Your task to perform on an android device: Open calendar and show me the third week of next month Image 0: 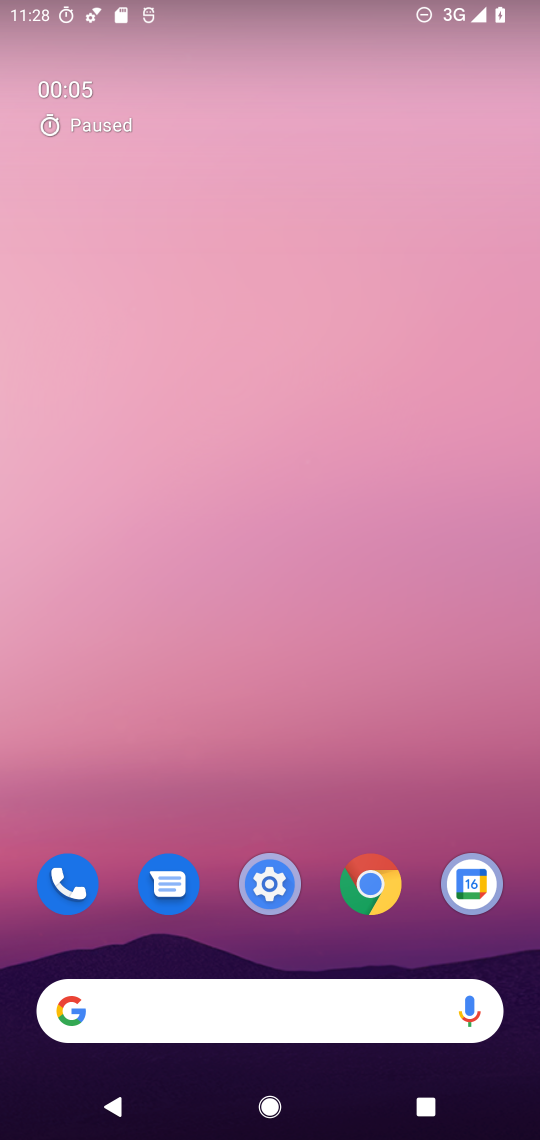
Step 0: drag from (322, 719) to (305, 252)
Your task to perform on an android device: Open calendar and show me the third week of next month Image 1: 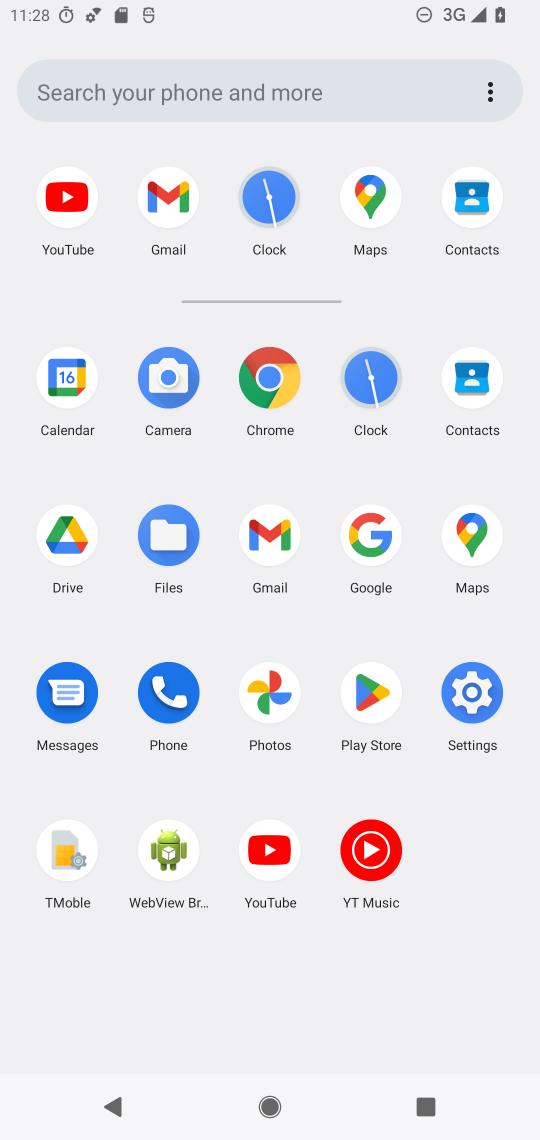
Step 1: click (58, 433)
Your task to perform on an android device: Open calendar and show me the third week of next month Image 2: 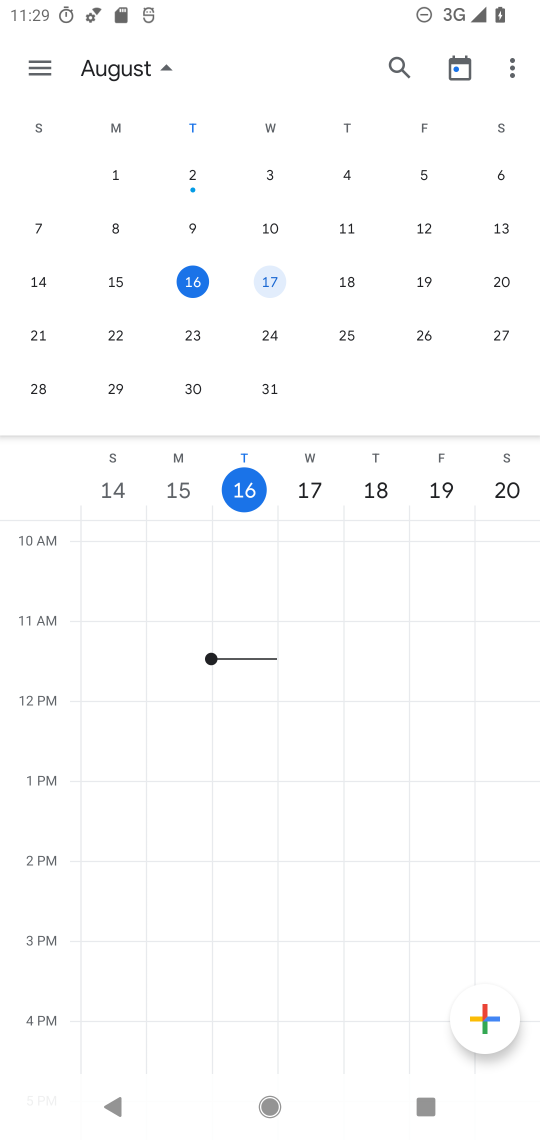
Step 2: click (107, 70)
Your task to perform on an android device: Open calendar and show me the third week of next month Image 3: 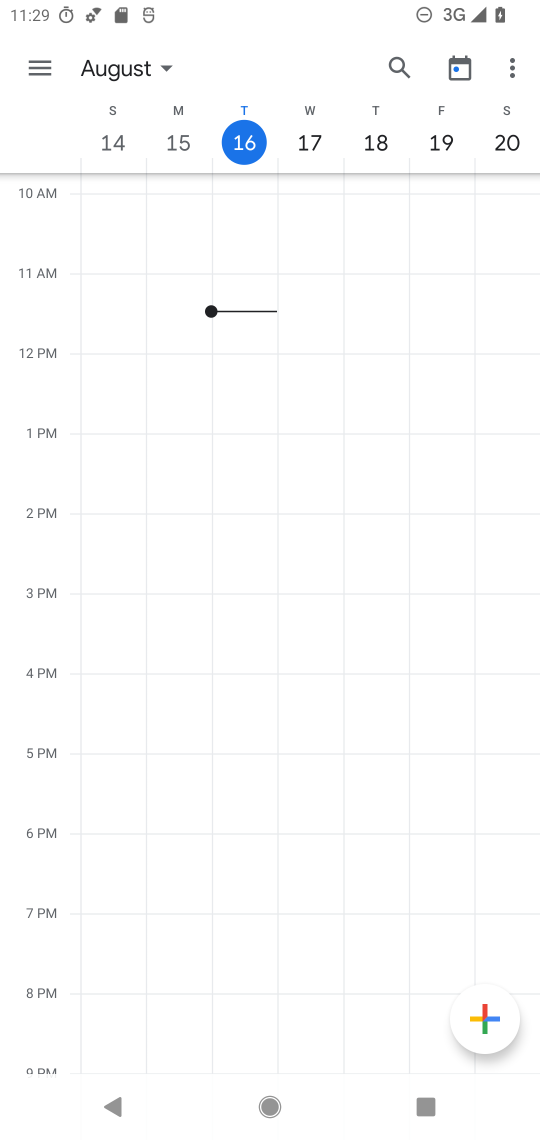
Step 3: click (107, 70)
Your task to perform on an android device: Open calendar and show me the third week of next month Image 4: 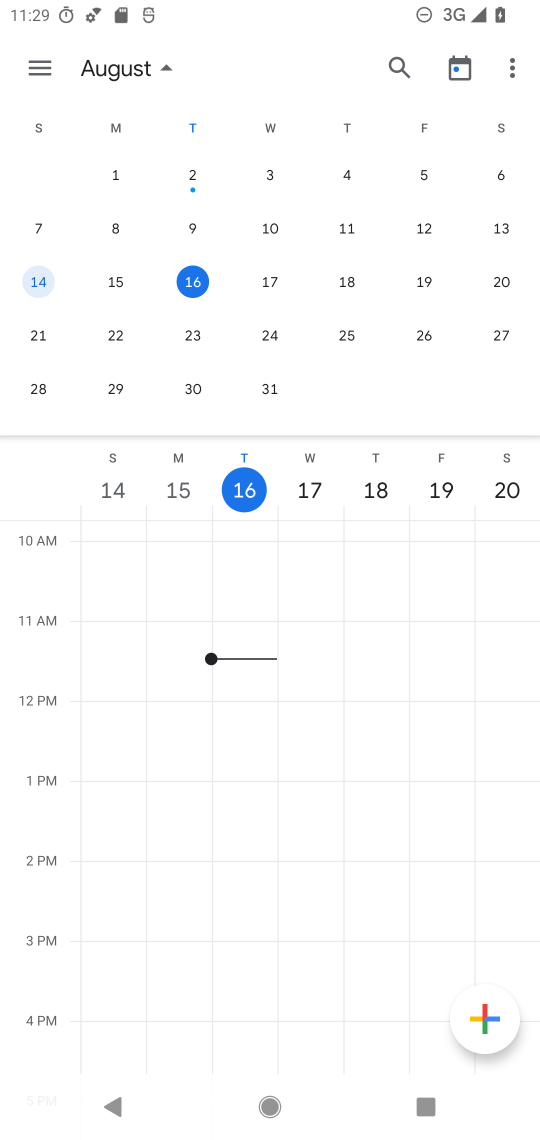
Step 4: drag from (488, 256) to (27, 293)
Your task to perform on an android device: Open calendar and show me the third week of next month Image 5: 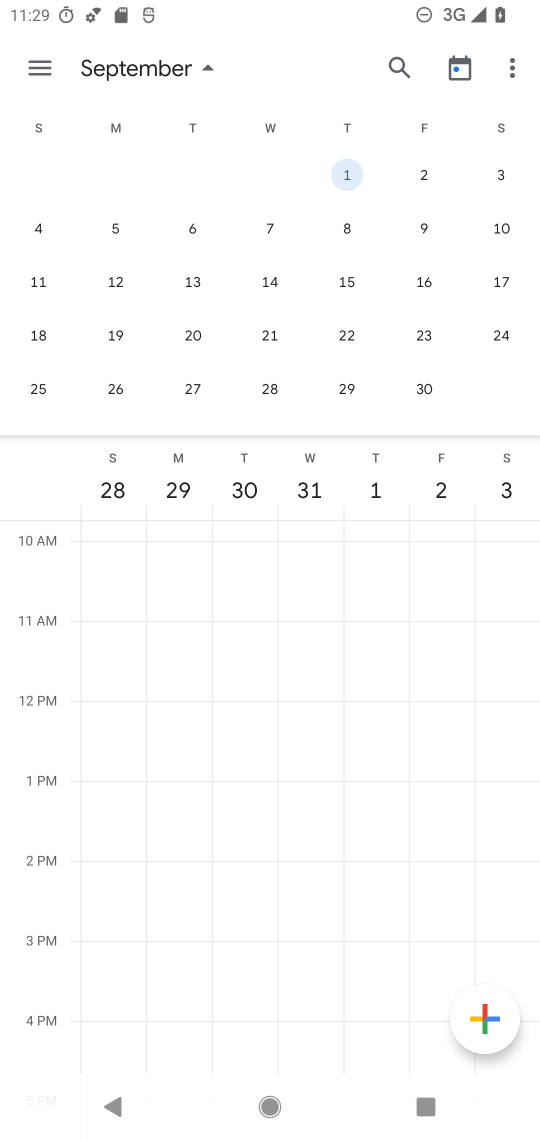
Step 5: click (38, 278)
Your task to perform on an android device: Open calendar and show me the third week of next month Image 6: 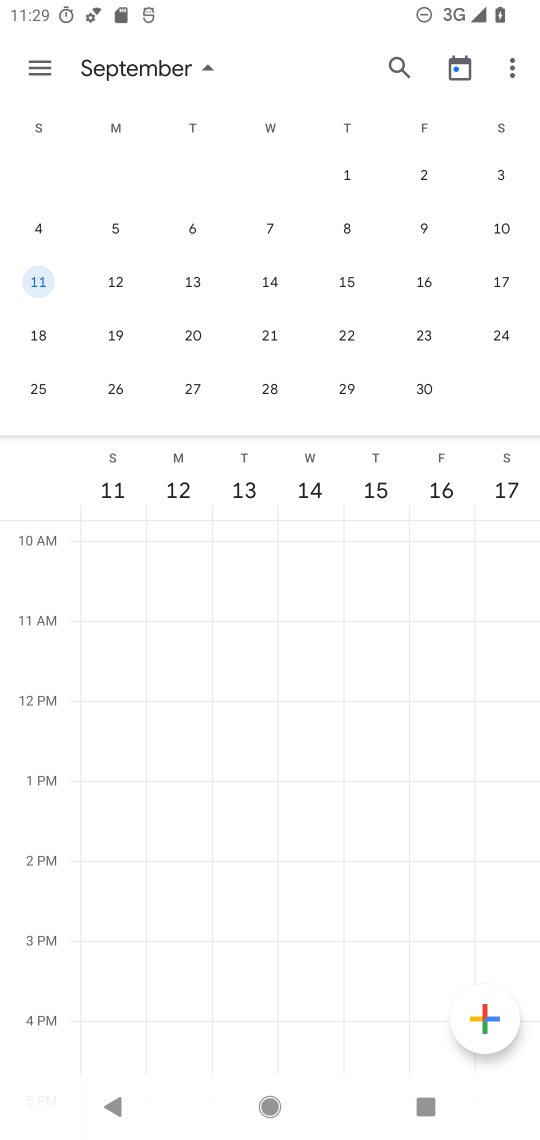
Step 6: task complete